Your task to perform on an android device: change the clock style Image 0: 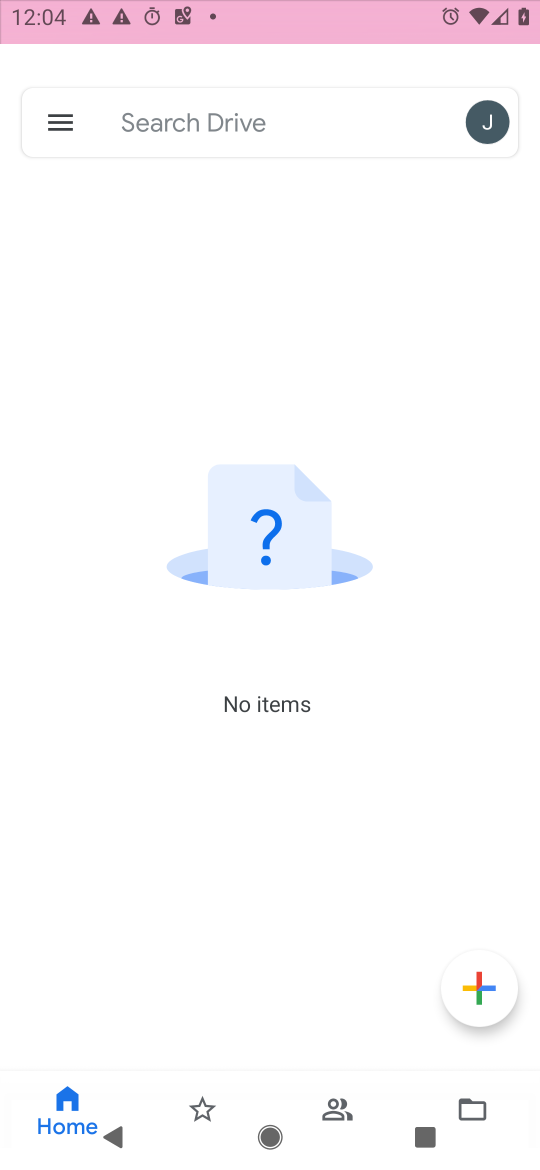
Step 0: click (314, 324)
Your task to perform on an android device: change the clock style Image 1: 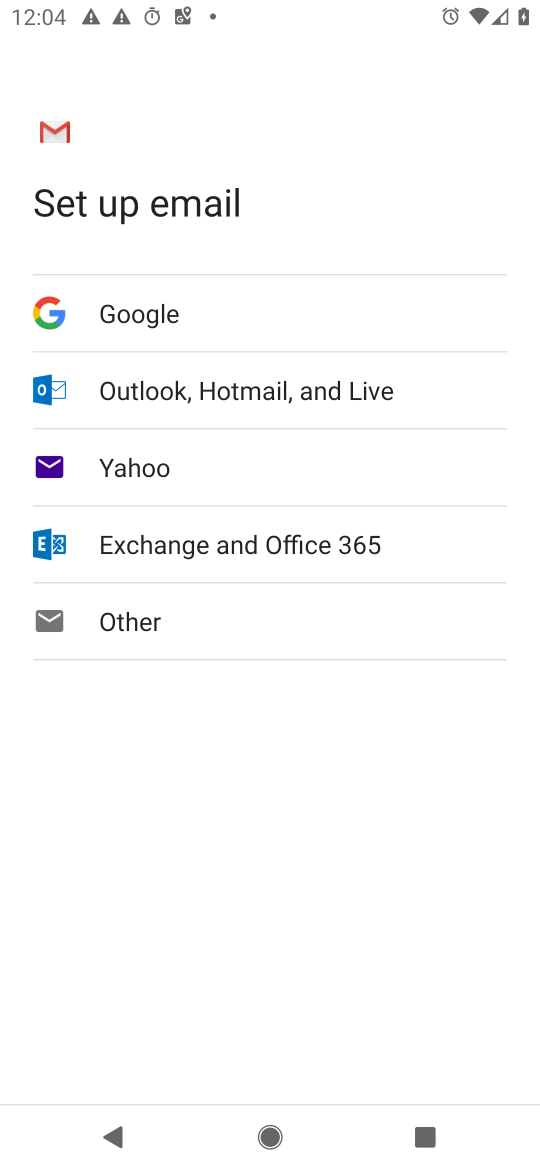
Step 1: drag from (337, 915) to (335, 213)
Your task to perform on an android device: change the clock style Image 2: 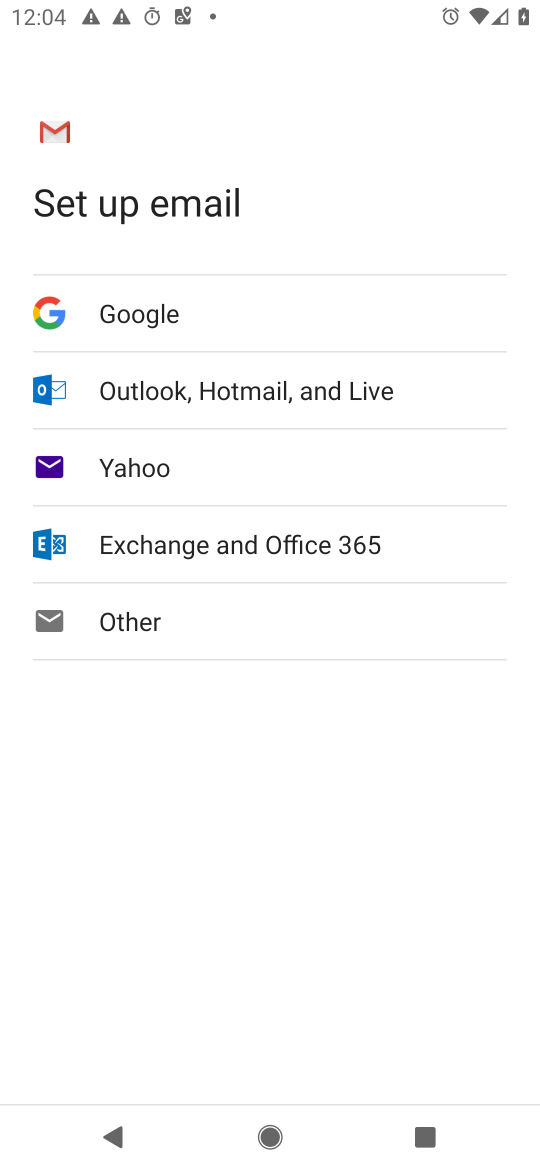
Step 2: press home button
Your task to perform on an android device: change the clock style Image 3: 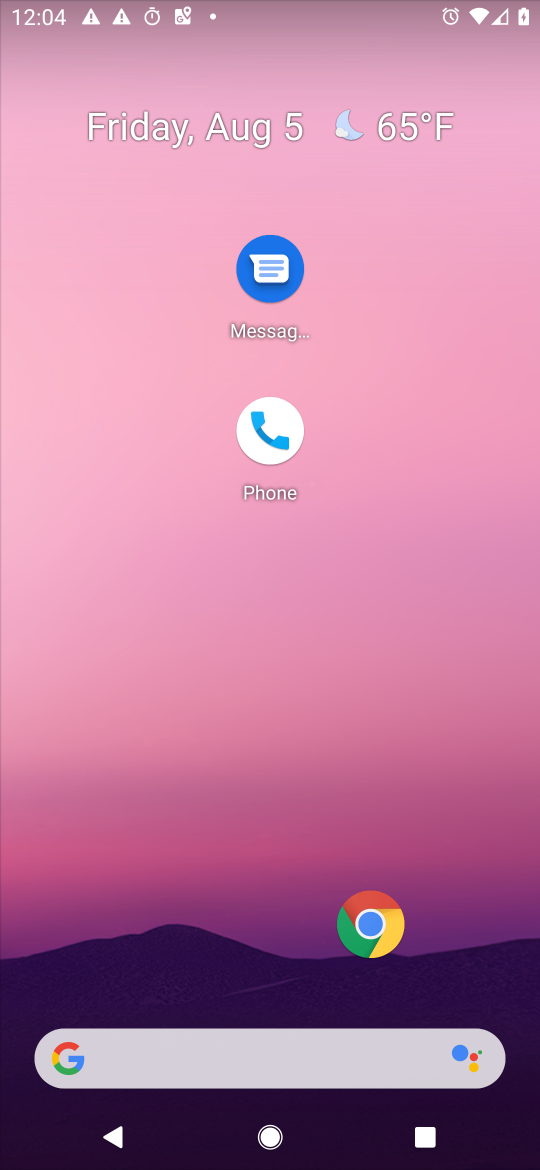
Step 3: drag from (254, 883) to (285, 508)
Your task to perform on an android device: change the clock style Image 4: 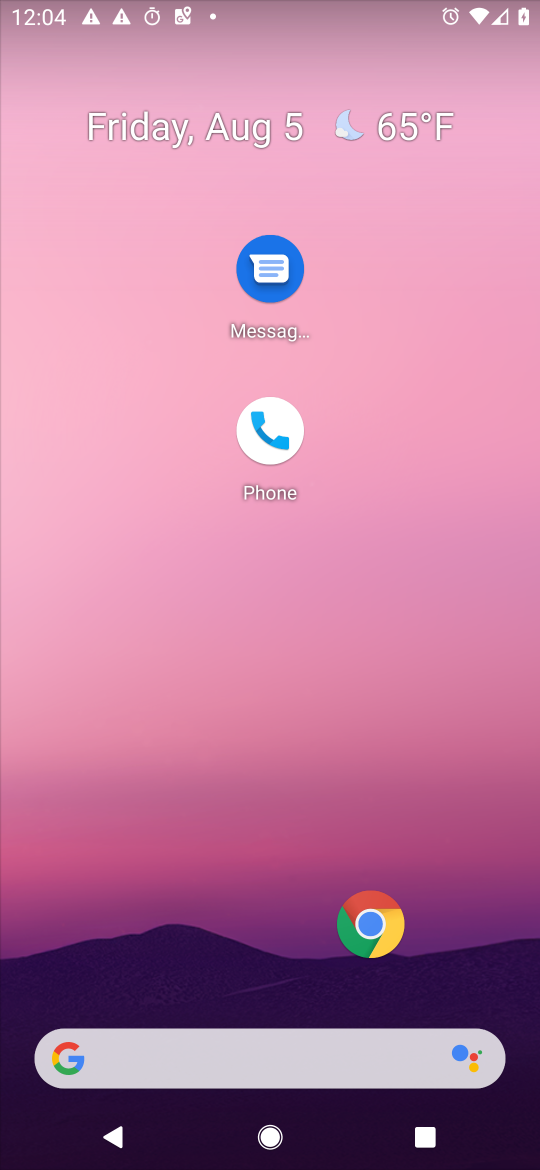
Step 4: drag from (228, 923) to (356, 588)
Your task to perform on an android device: change the clock style Image 5: 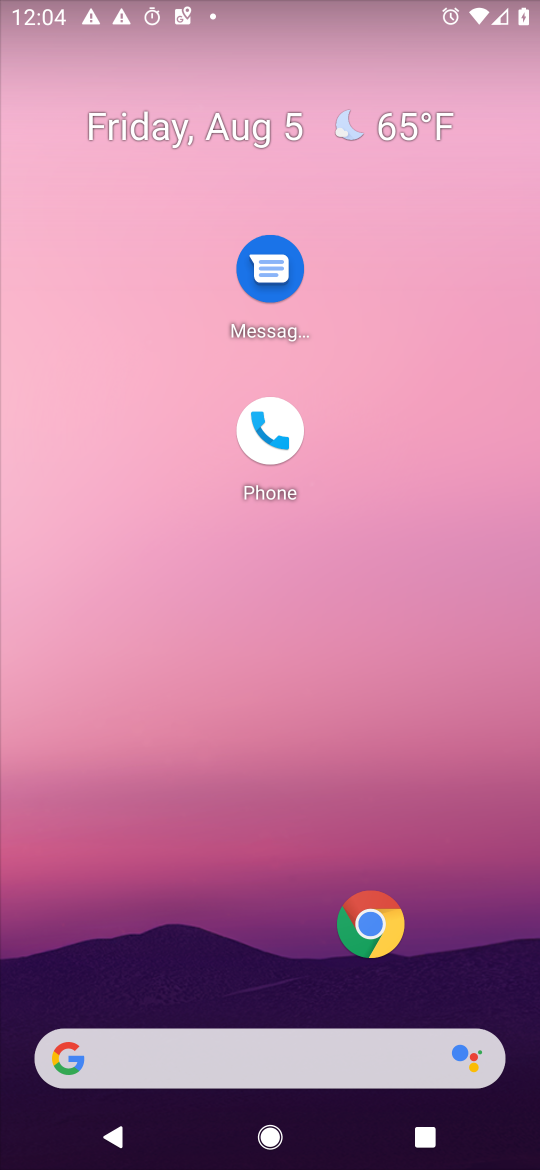
Step 5: drag from (233, 872) to (361, 234)
Your task to perform on an android device: change the clock style Image 6: 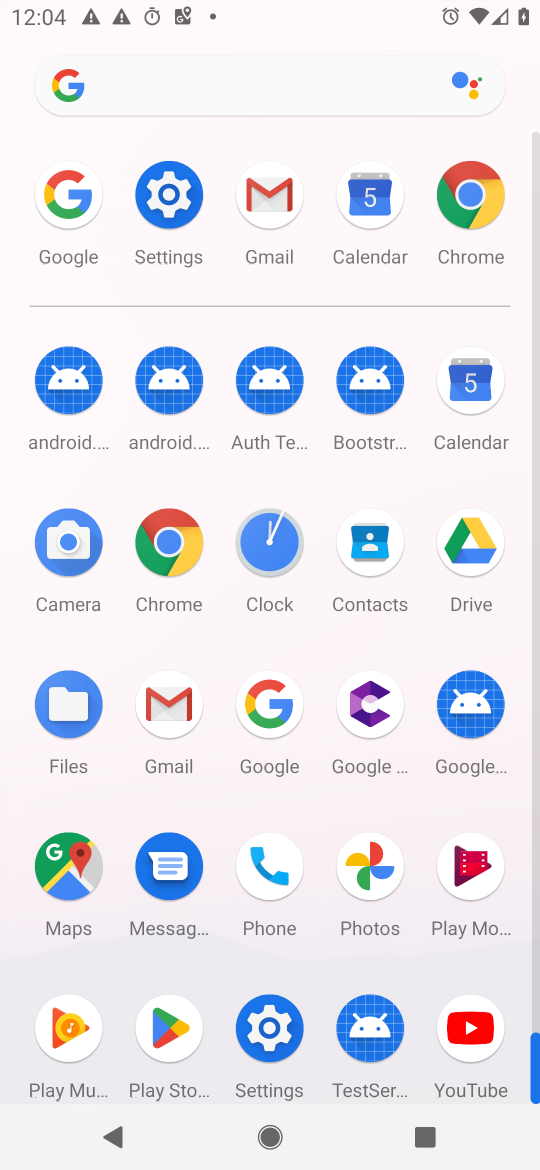
Step 6: drag from (268, 919) to (266, 379)
Your task to perform on an android device: change the clock style Image 7: 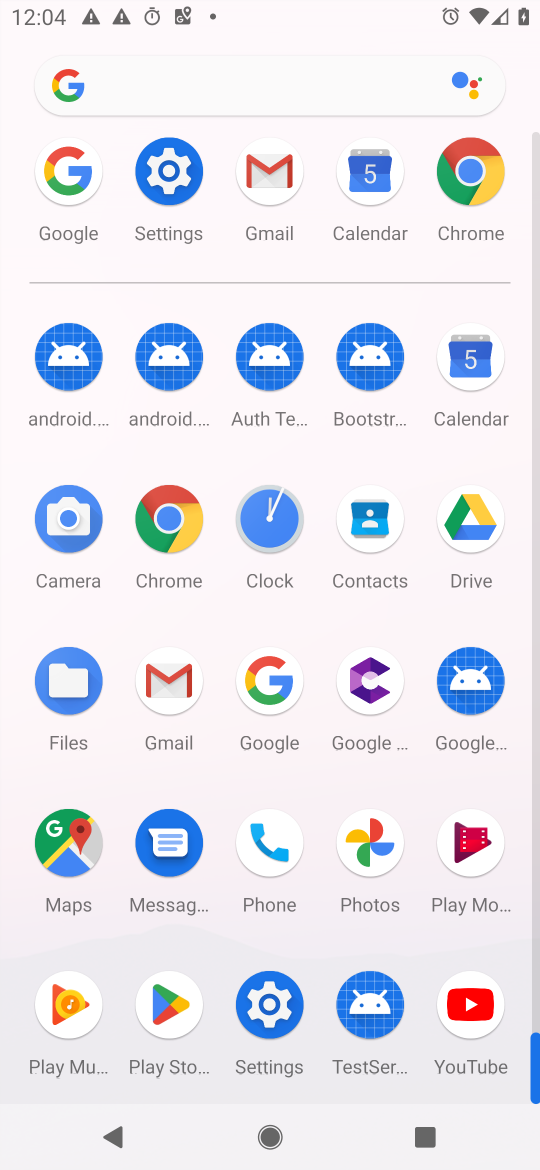
Step 7: click (257, 514)
Your task to perform on an android device: change the clock style Image 8: 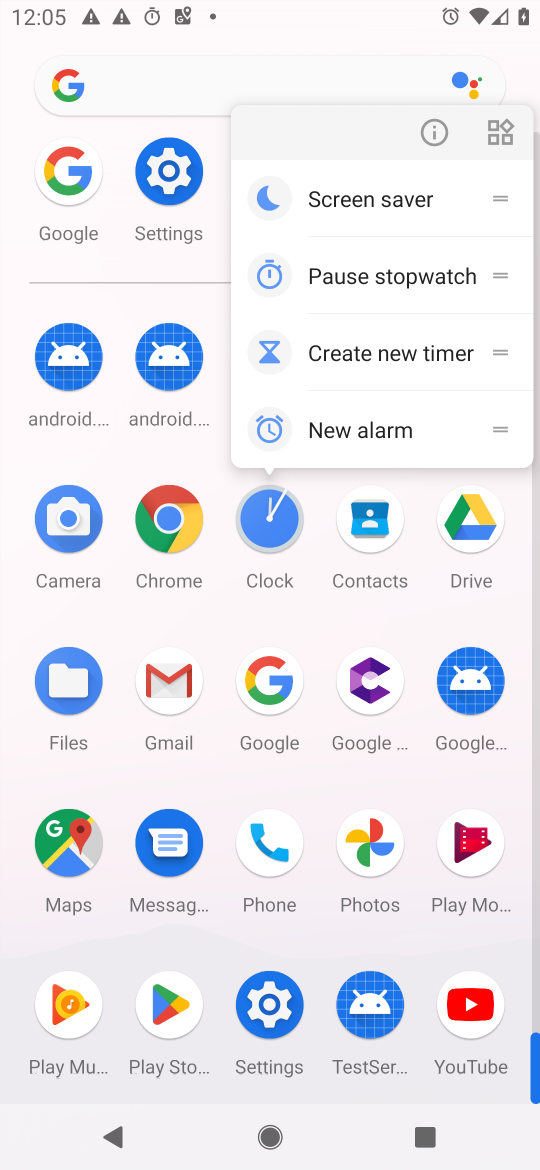
Step 8: click (406, 114)
Your task to perform on an android device: change the clock style Image 9: 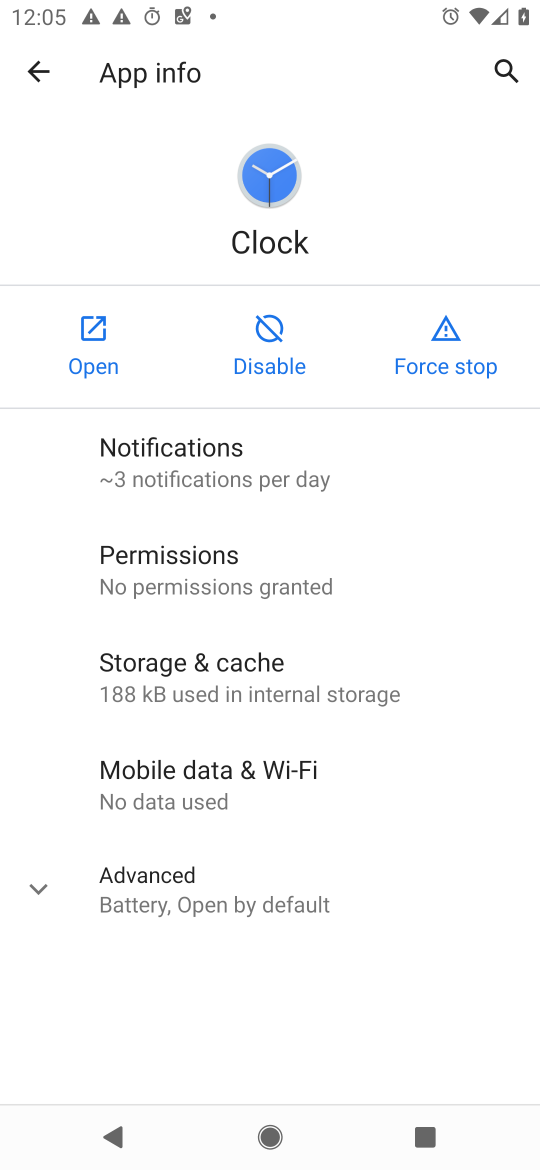
Step 9: click (78, 341)
Your task to perform on an android device: change the clock style Image 10: 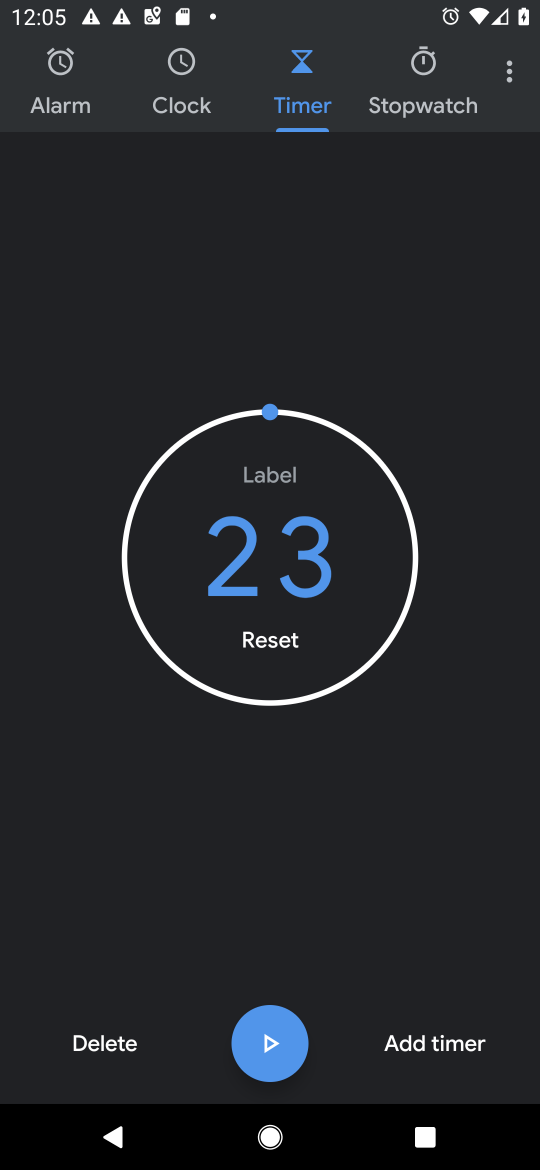
Step 10: drag from (236, 261) to (224, 181)
Your task to perform on an android device: change the clock style Image 11: 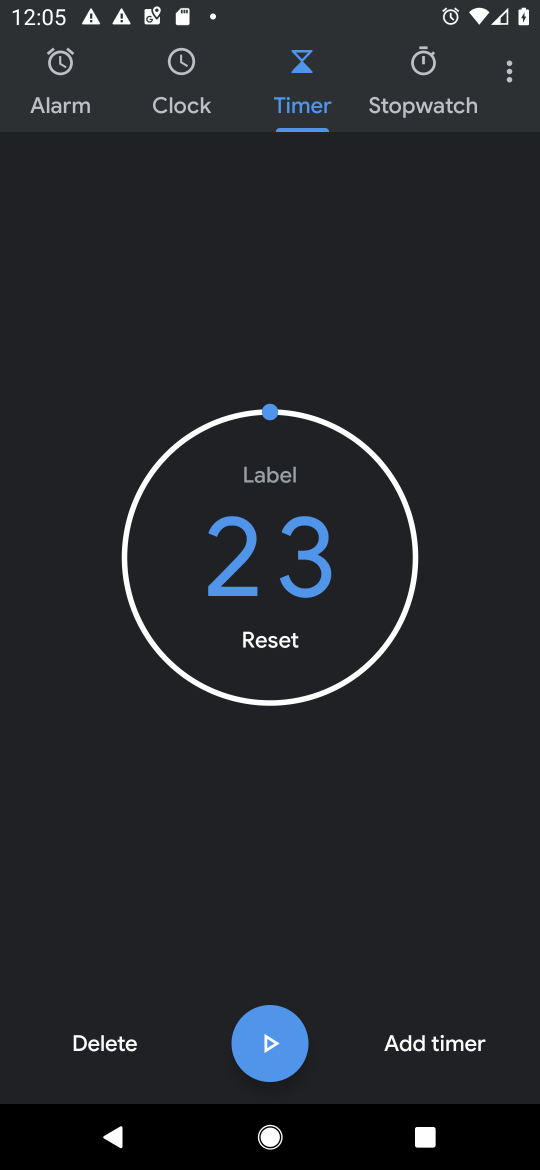
Step 11: click (507, 66)
Your task to perform on an android device: change the clock style Image 12: 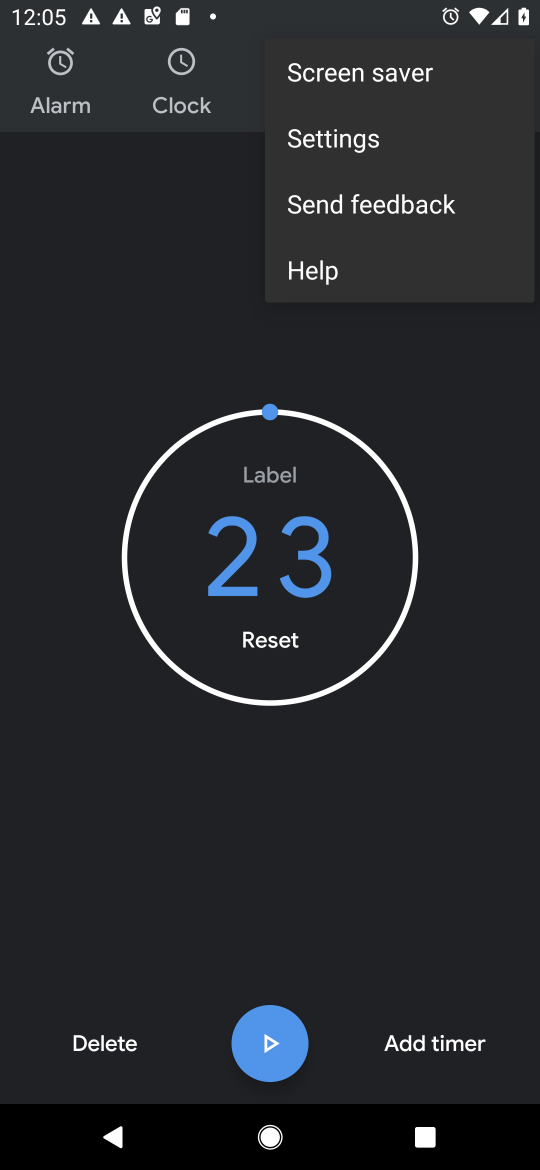
Step 12: click (387, 152)
Your task to perform on an android device: change the clock style Image 13: 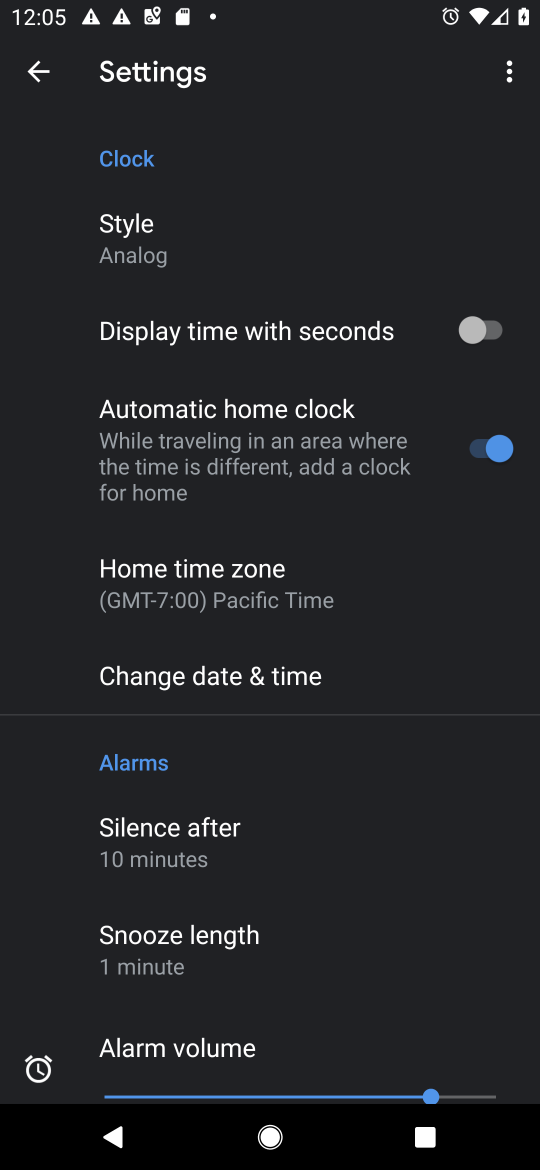
Step 13: drag from (286, 800) to (392, 421)
Your task to perform on an android device: change the clock style Image 14: 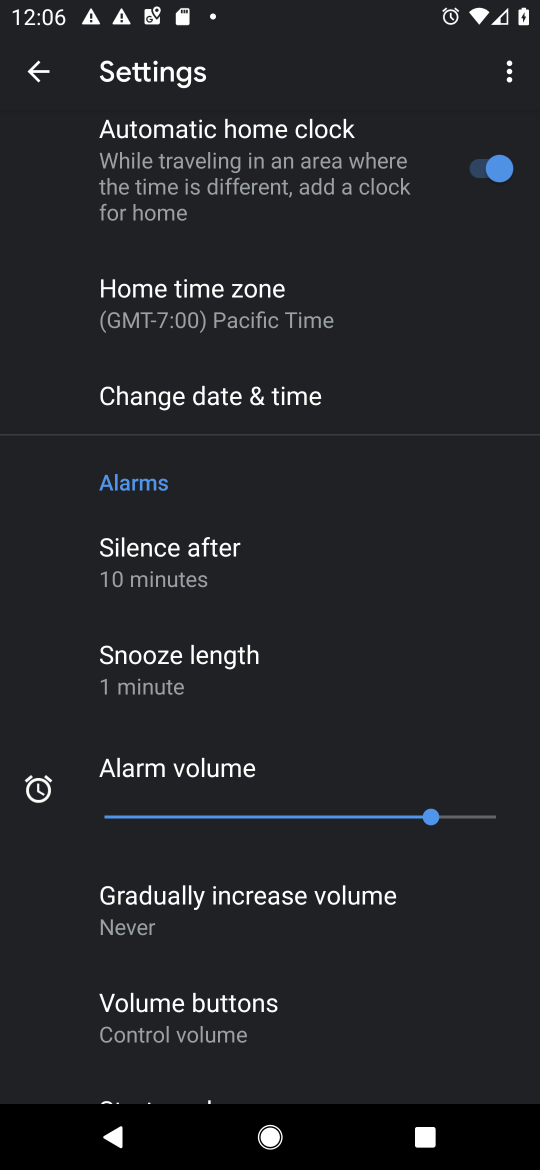
Step 14: drag from (319, 692) to (438, 287)
Your task to perform on an android device: change the clock style Image 15: 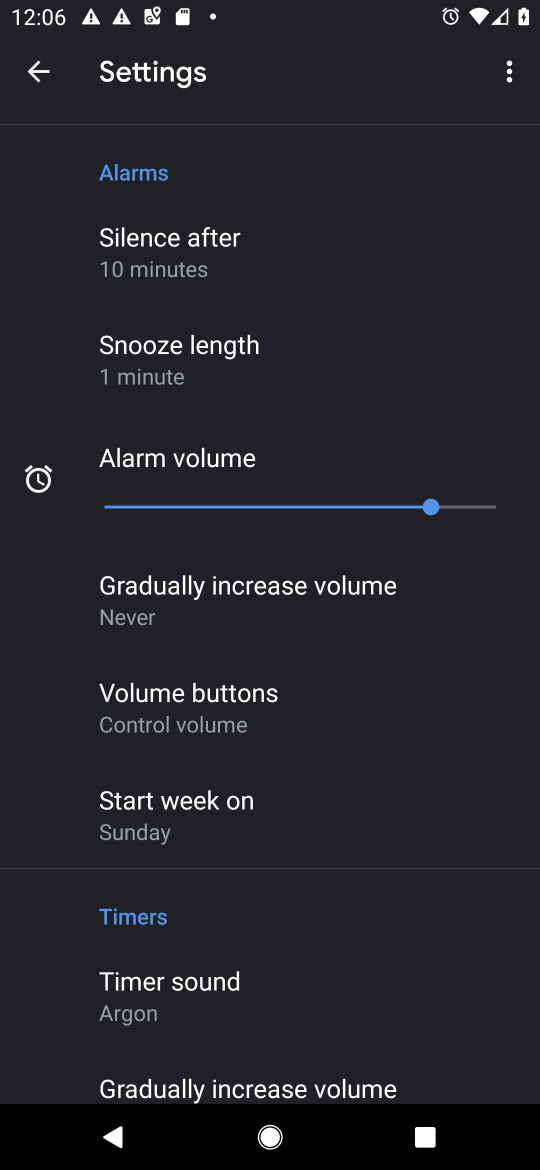
Step 15: drag from (305, 513) to (293, 1125)
Your task to perform on an android device: change the clock style Image 16: 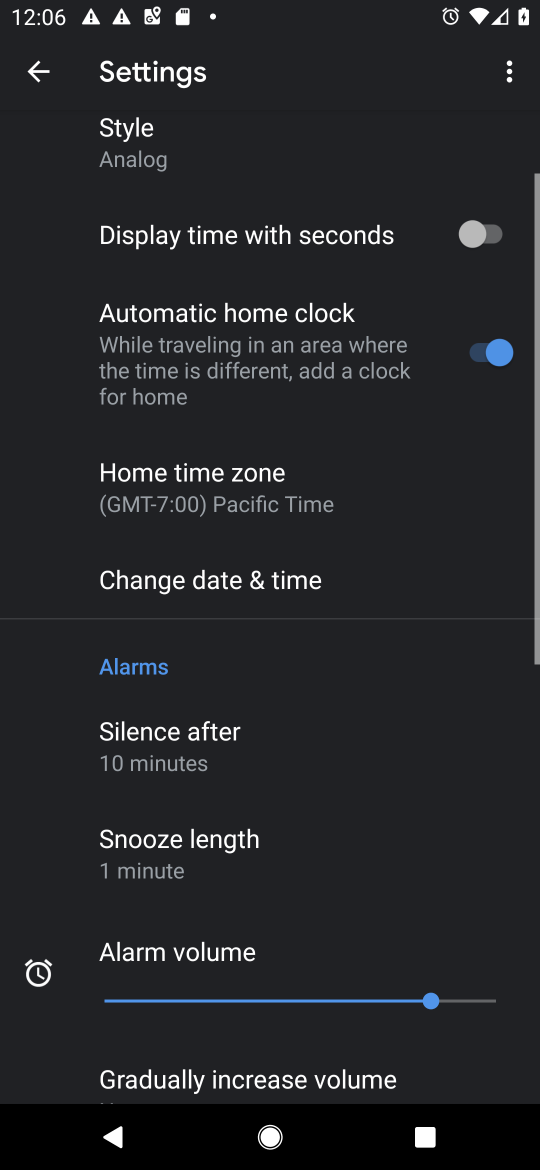
Step 16: drag from (259, 299) to (251, 954)
Your task to perform on an android device: change the clock style Image 17: 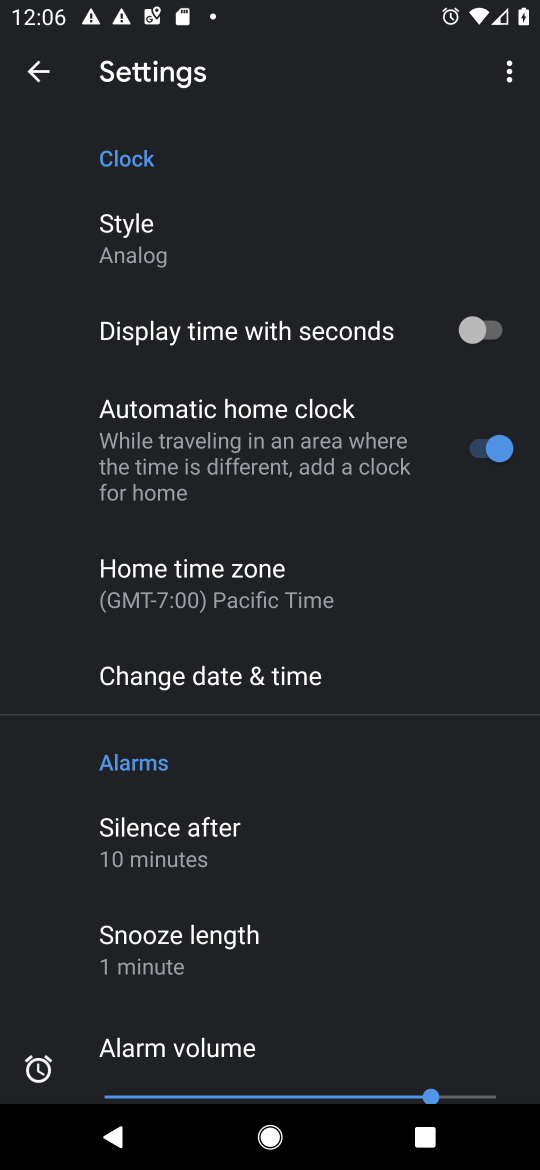
Step 17: click (138, 220)
Your task to perform on an android device: change the clock style Image 18: 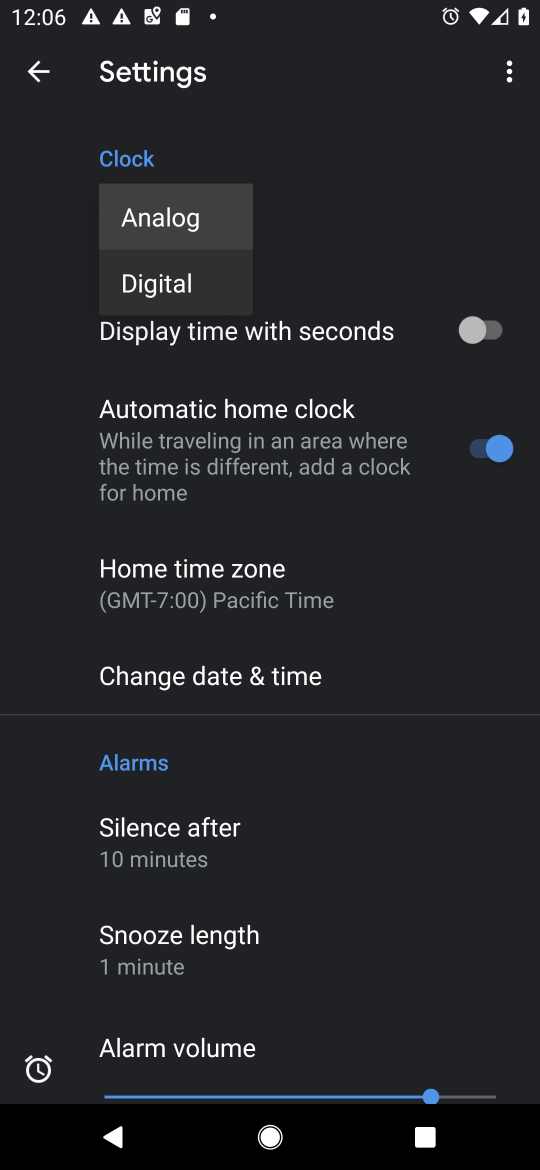
Step 18: click (169, 271)
Your task to perform on an android device: change the clock style Image 19: 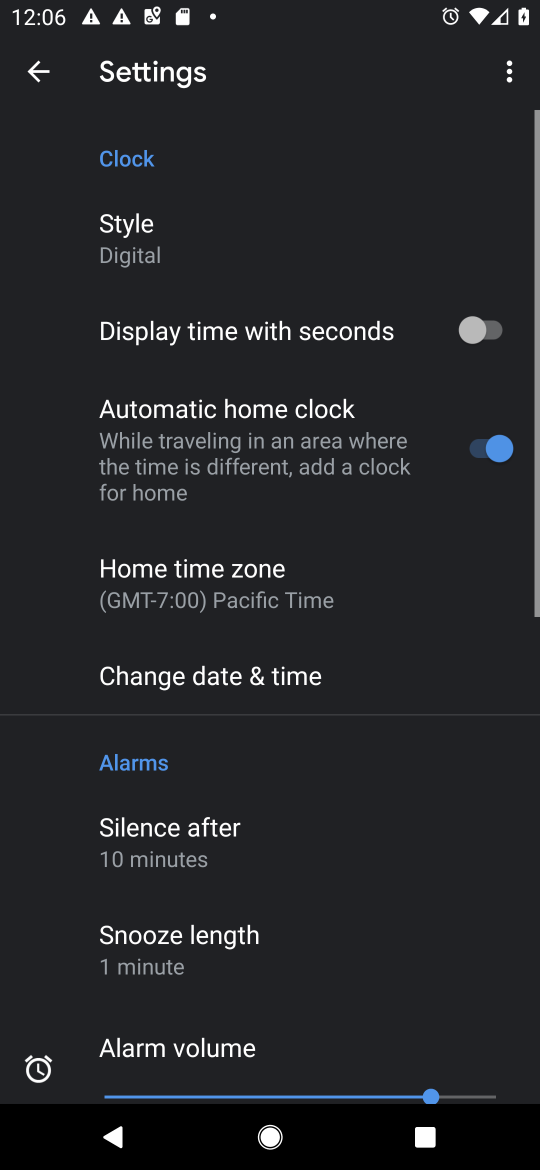
Step 19: task complete